Your task to perform on an android device: add a label to a message in the gmail app Image 0: 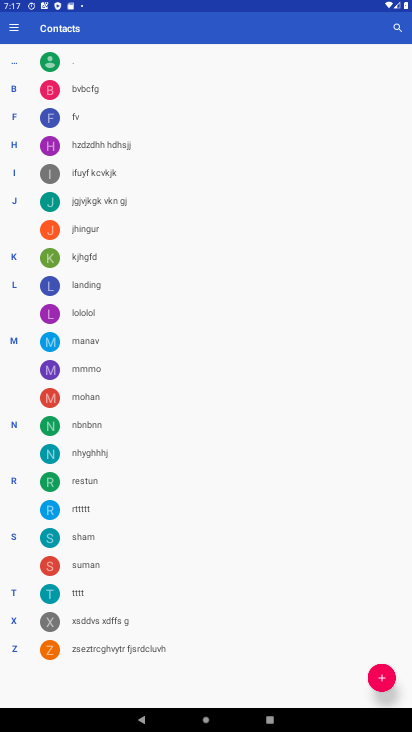
Step 0: press home button
Your task to perform on an android device: add a label to a message in the gmail app Image 1: 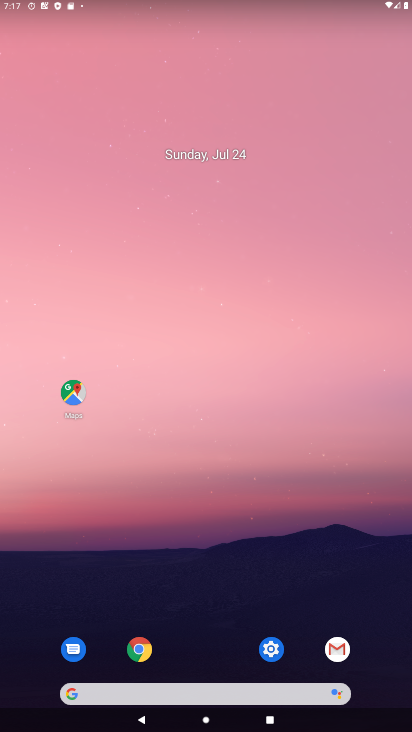
Step 1: click (332, 654)
Your task to perform on an android device: add a label to a message in the gmail app Image 2: 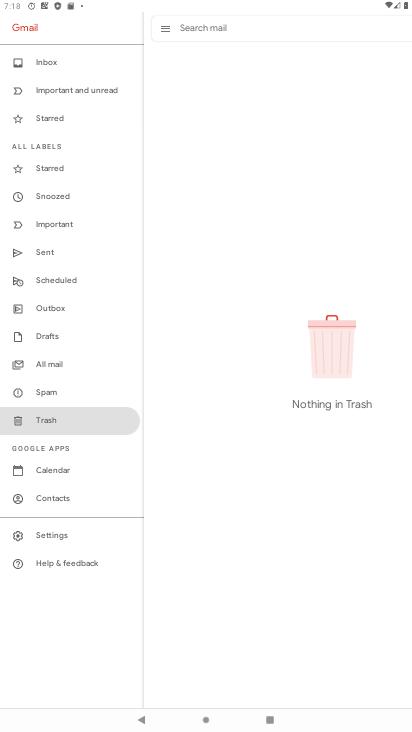
Step 2: click (57, 530)
Your task to perform on an android device: add a label to a message in the gmail app Image 3: 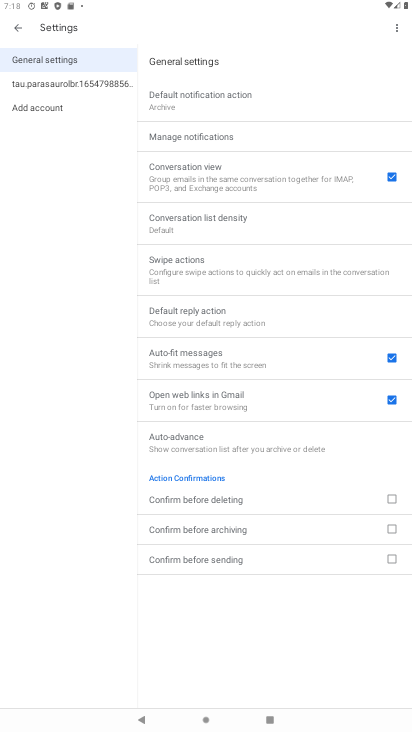
Step 3: click (45, 85)
Your task to perform on an android device: add a label to a message in the gmail app Image 4: 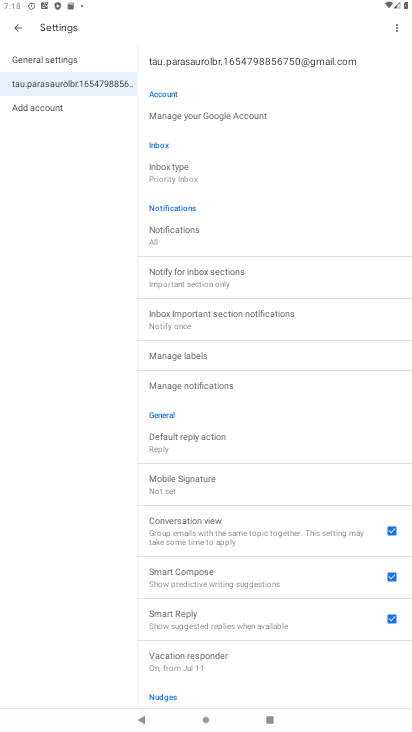
Step 4: click (221, 361)
Your task to perform on an android device: add a label to a message in the gmail app Image 5: 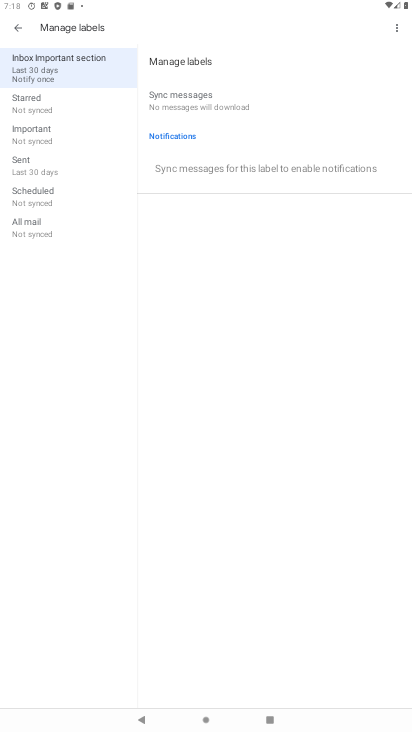
Step 5: click (45, 76)
Your task to perform on an android device: add a label to a message in the gmail app Image 6: 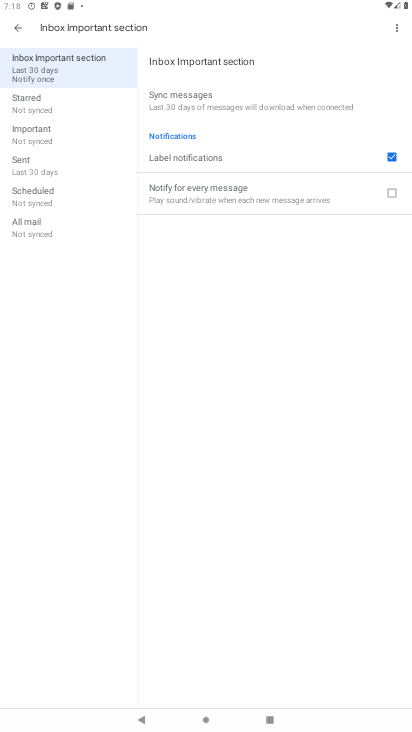
Step 6: task complete